Your task to perform on an android device: open app "Mercado Libre" (install if not already installed) Image 0: 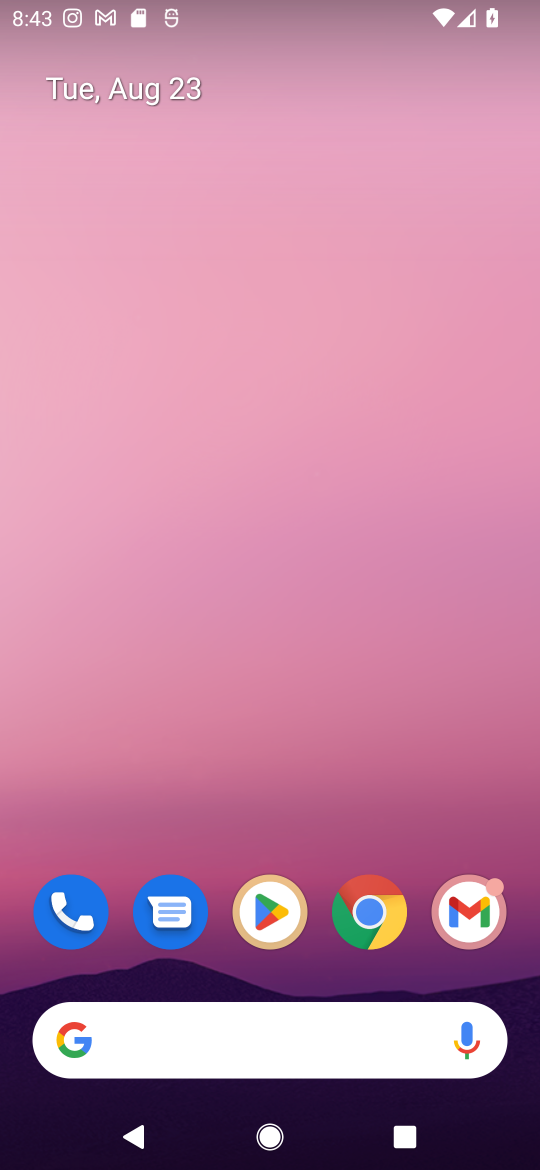
Step 0: click (268, 909)
Your task to perform on an android device: open app "Mercado Libre" (install if not already installed) Image 1: 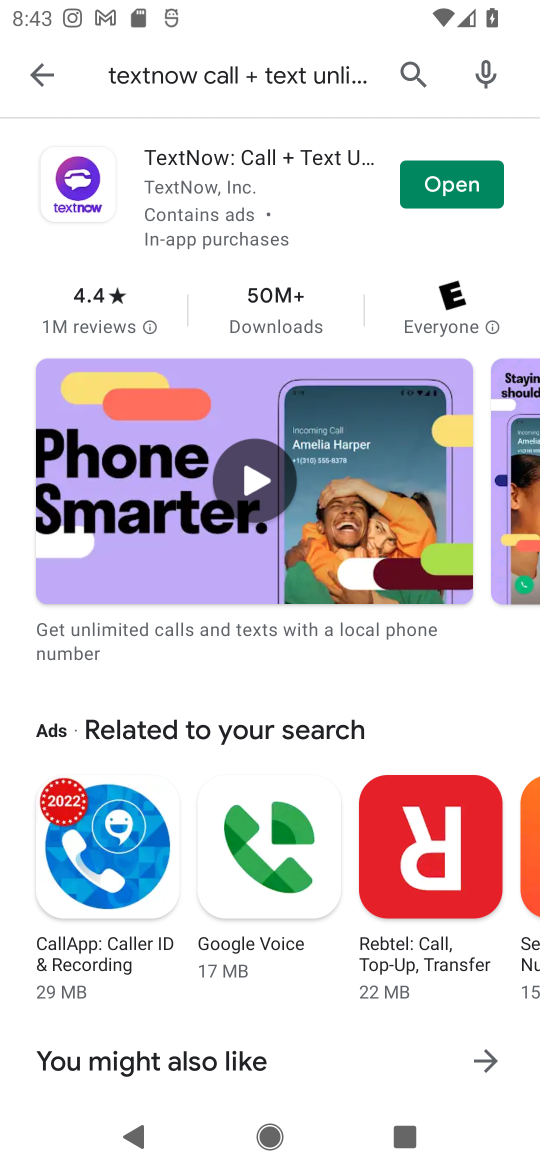
Step 1: click (407, 66)
Your task to perform on an android device: open app "Mercado Libre" (install if not already installed) Image 2: 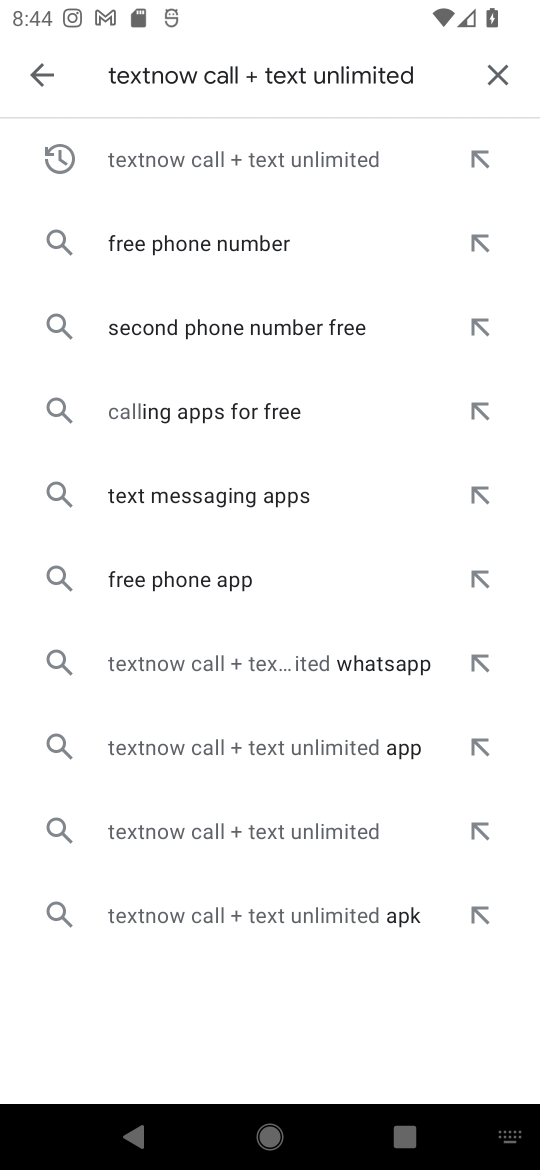
Step 2: click (498, 76)
Your task to perform on an android device: open app "Mercado Libre" (install if not already installed) Image 3: 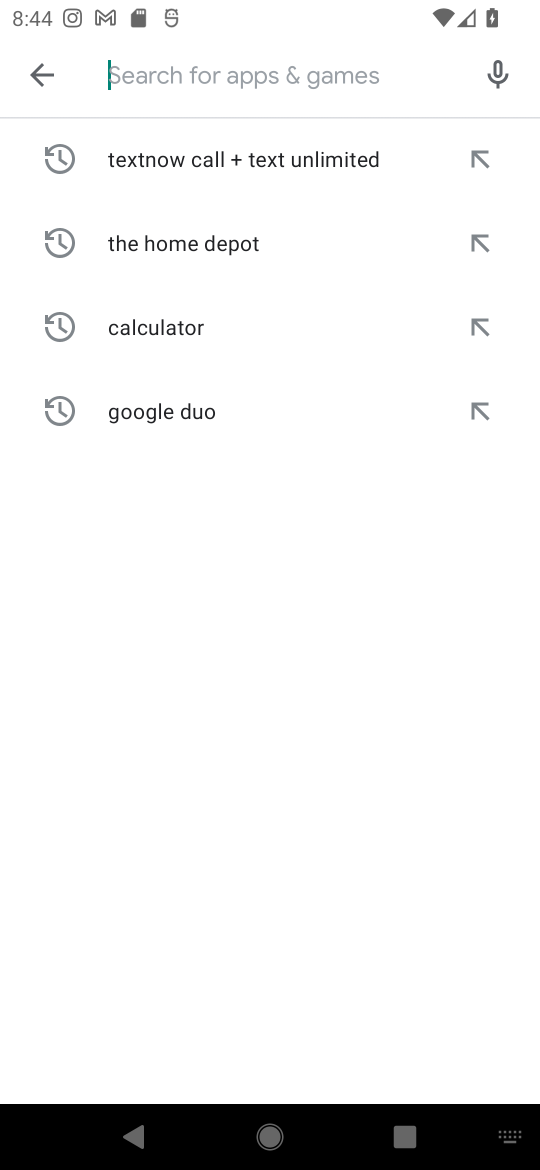
Step 3: type "Mercado Libre"
Your task to perform on an android device: open app "Mercado Libre" (install if not already installed) Image 4: 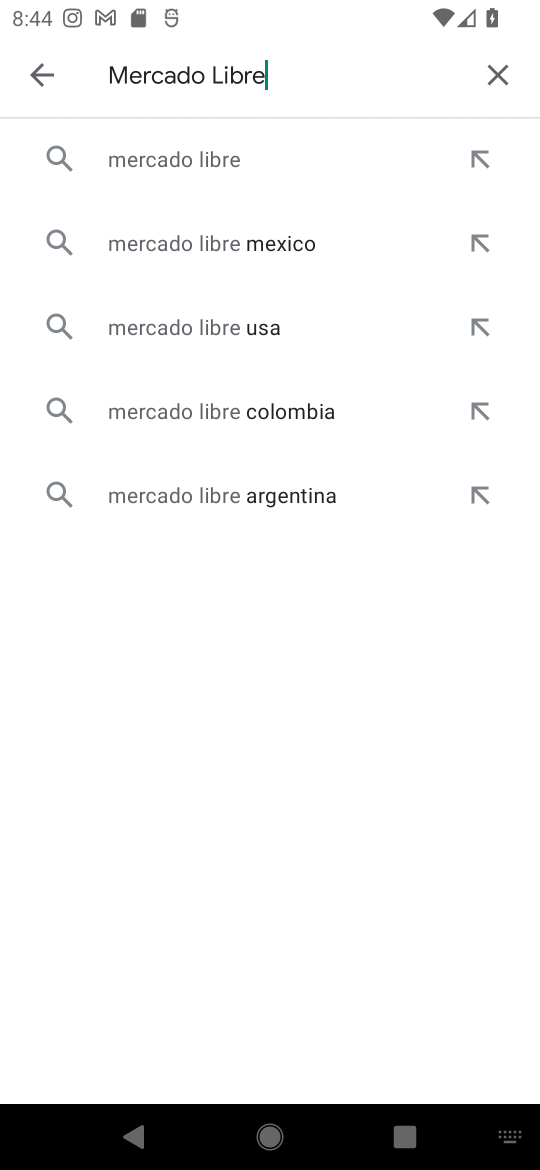
Step 4: click (198, 165)
Your task to perform on an android device: open app "Mercado Libre" (install if not already installed) Image 5: 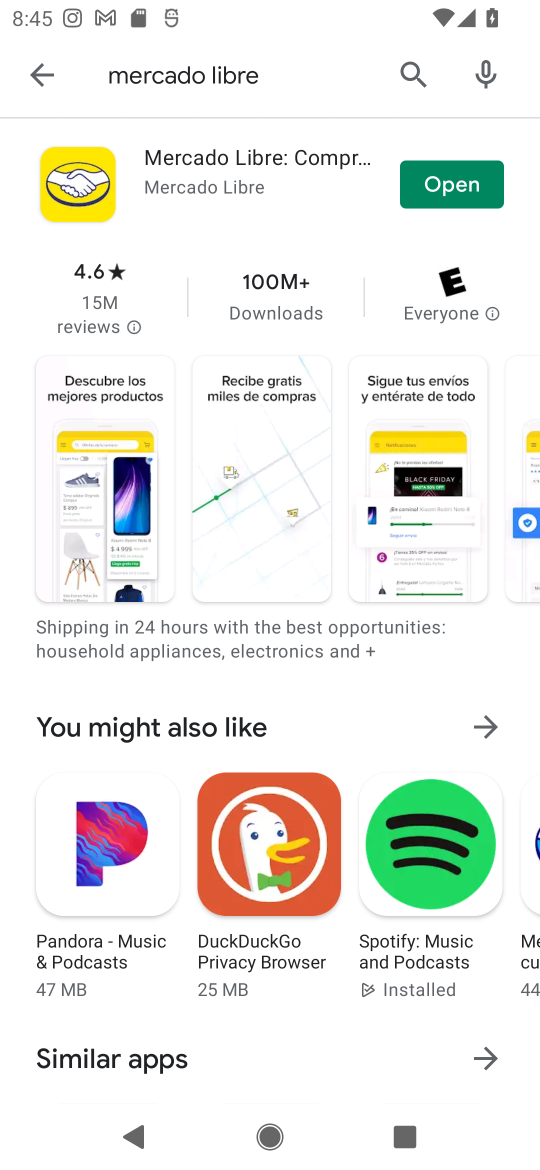
Step 5: click (452, 190)
Your task to perform on an android device: open app "Mercado Libre" (install if not already installed) Image 6: 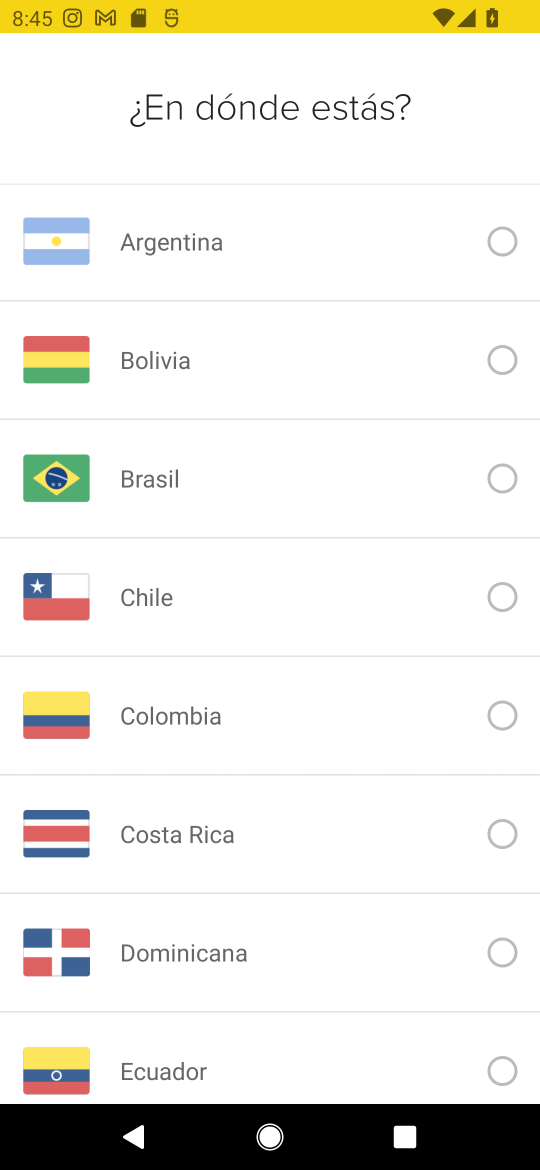
Step 6: task complete